Your task to perform on an android device: Turn on the flashlight Image 0: 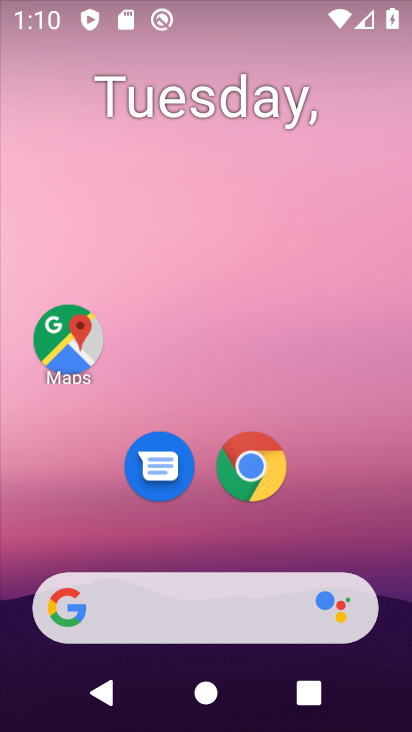
Step 0: drag from (378, 549) to (368, 68)
Your task to perform on an android device: Turn on the flashlight Image 1: 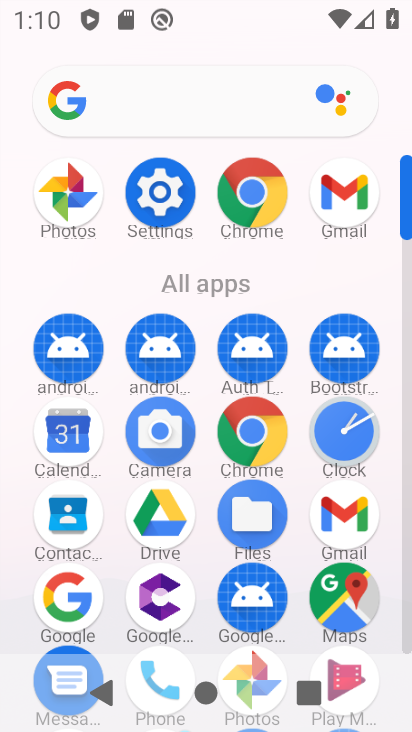
Step 1: click (154, 168)
Your task to perform on an android device: Turn on the flashlight Image 2: 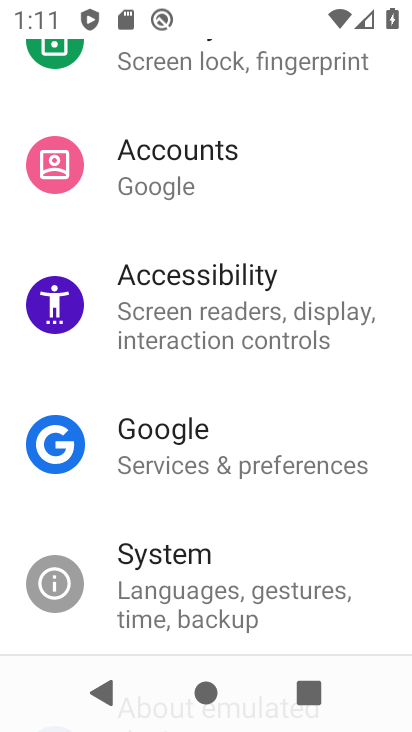
Step 2: task complete